Your task to perform on an android device: all mails in gmail Image 0: 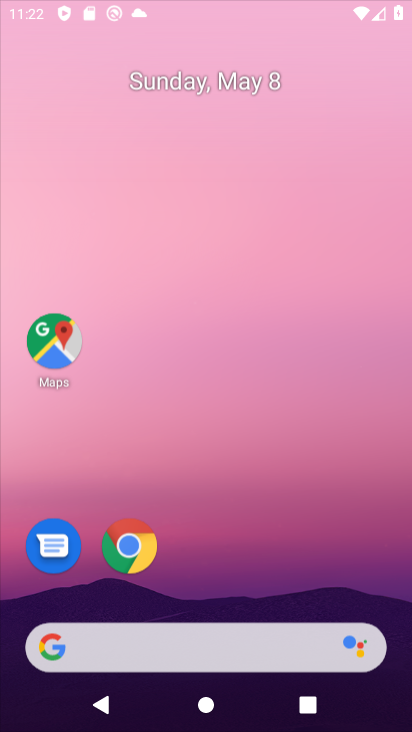
Step 0: click (128, 564)
Your task to perform on an android device: all mails in gmail Image 1: 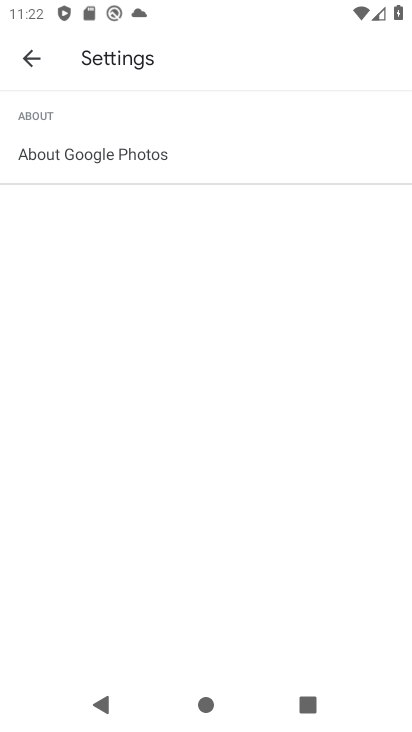
Step 1: press home button
Your task to perform on an android device: all mails in gmail Image 2: 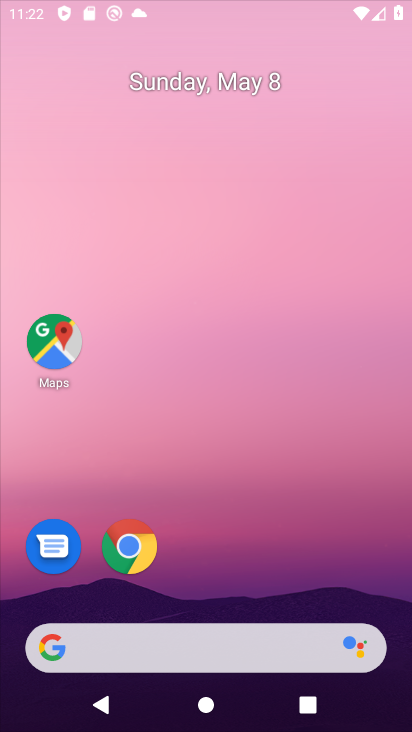
Step 2: drag from (232, 626) to (235, 156)
Your task to perform on an android device: all mails in gmail Image 3: 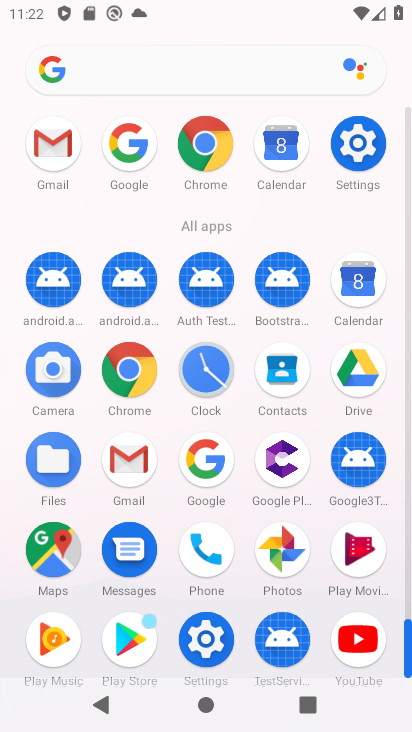
Step 3: click (117, 448)
Your task to perform on an android device: all mails in gmail Image 4: 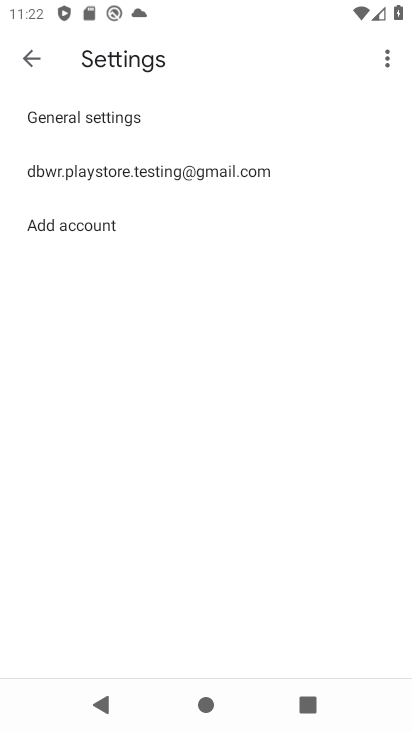
Step 4: press back button
Your task to perform on an android device: all mails in gmail Image 5: 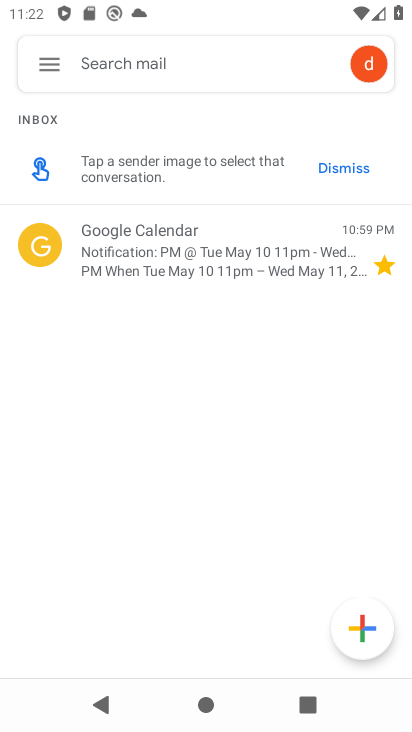
Step 5: click (54, 75)
Your task to perform on an android device: all mails in gmail Image 6: 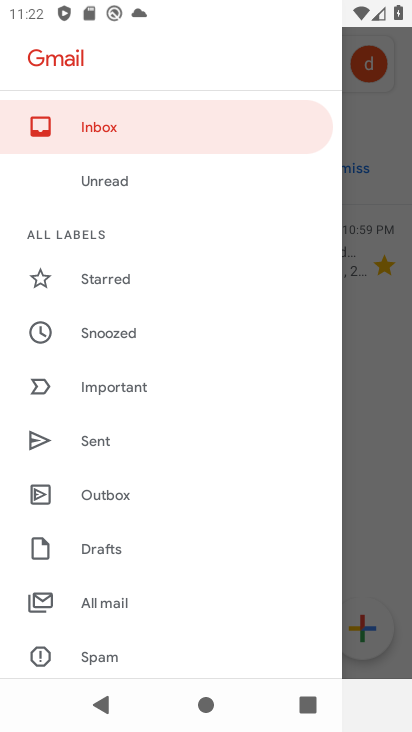
Step 6: click (130, 599)
Your task to perform on an android device: all mails in gmail Image 7: 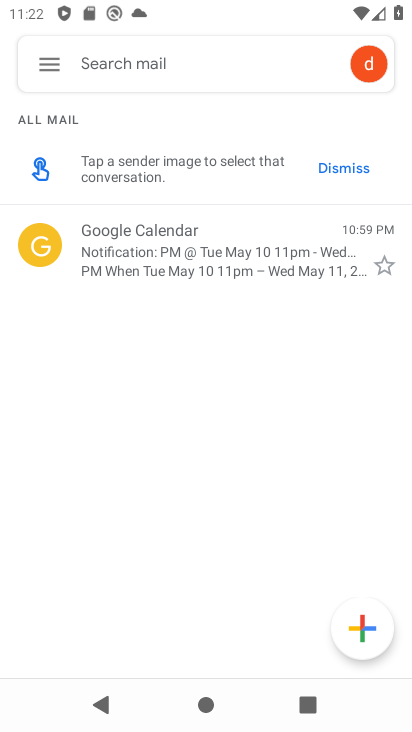
Step 7: task complete